Your task to perform on an android device: Search for vegetarian restaurants on Maps Image 0: 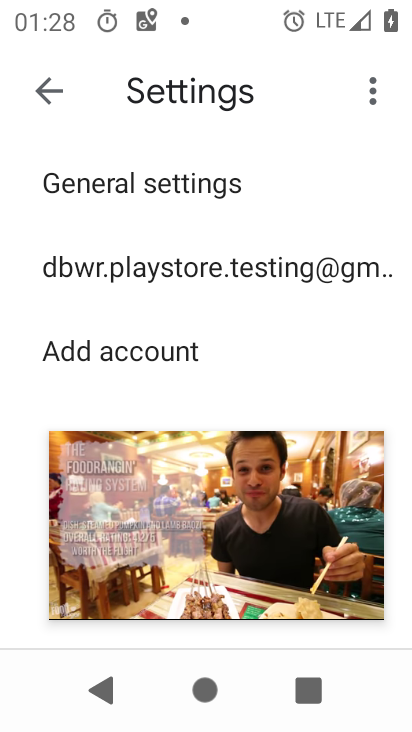
Step 0: drag from (261, 446) to (392, 729)
Your task to perform on an android device: Search for vegetarian restaurants on Maps Image 1: 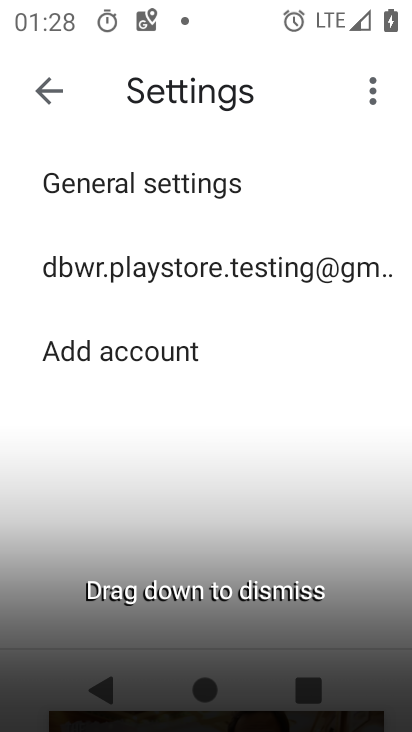
Step 1: press home button
Your task to perform on an android device: Search for vegetarian restaurants on Maps Image 2: 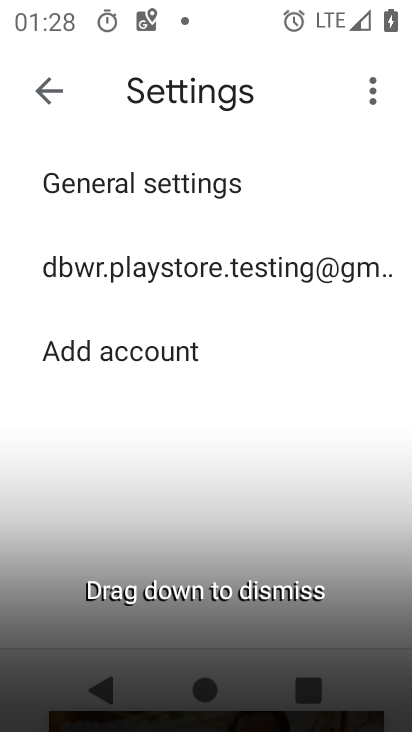
Step 2: click (406, 488)
Your task to perform on an android device: Search for vegetarian restaurants on Maps Image 3: 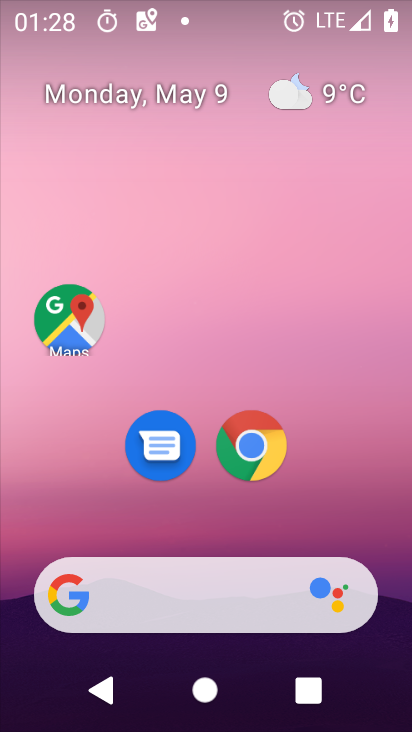
Step 3: click (69, 331)
Your task to perform on an android device: Search for vegetarian restaurants on Maps Image 4: 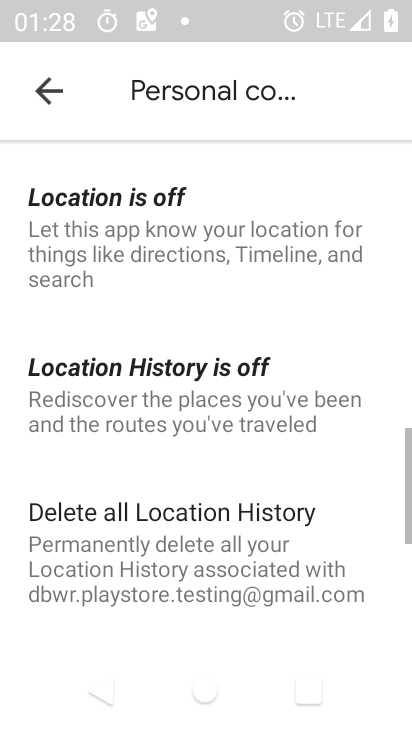
Step 4: click (56, 101)
Your task to perform on an android device: Search for vegetarian restaurants on Maps Image 5: 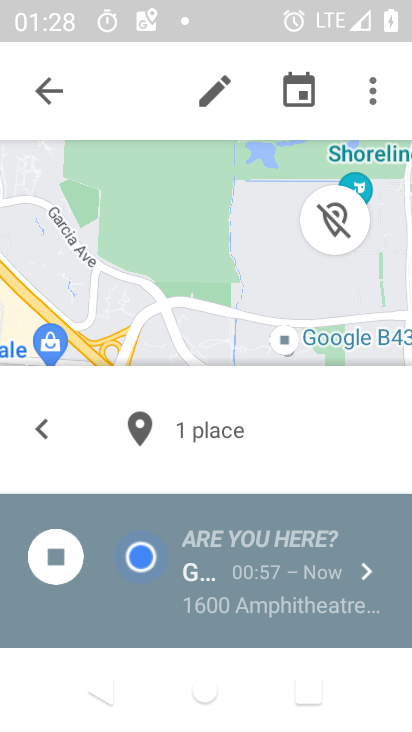
Step 5: click (56, 101)
Your task to perform on an android device: Search for vegetarian restaurants on Maps Image 6: 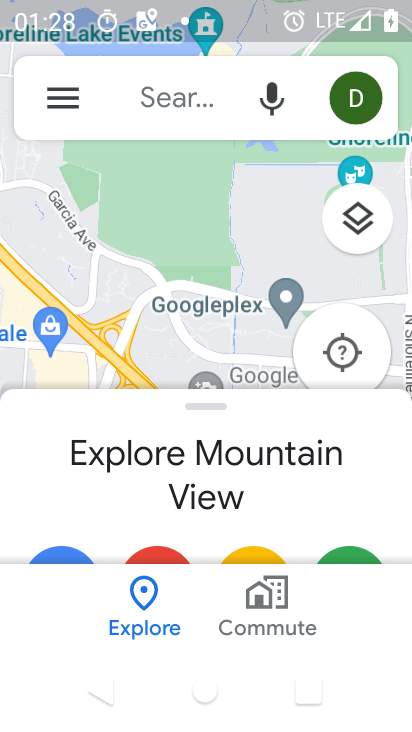
Step 6: click (142, 101)
Your task to perform on an android device: Search for vegetarian restaurants on Maps Image 7: 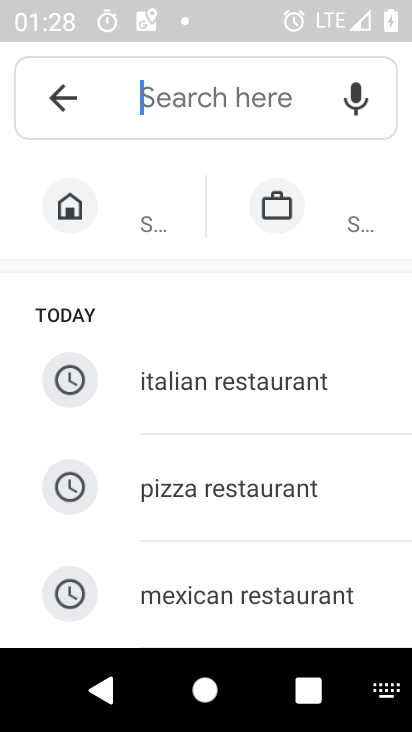
Step 7: type "vegetarian restaurant "
Your task to perform on an android device: Search for vegetarian restaurants on Maps Image 8: 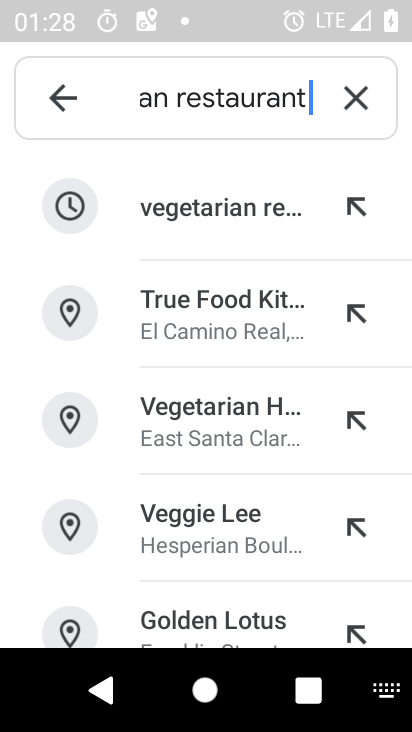
Step 8: click (222, 218)
Your task to perform on an android device: Search for vegetarian restaurants on Maps Image 9: 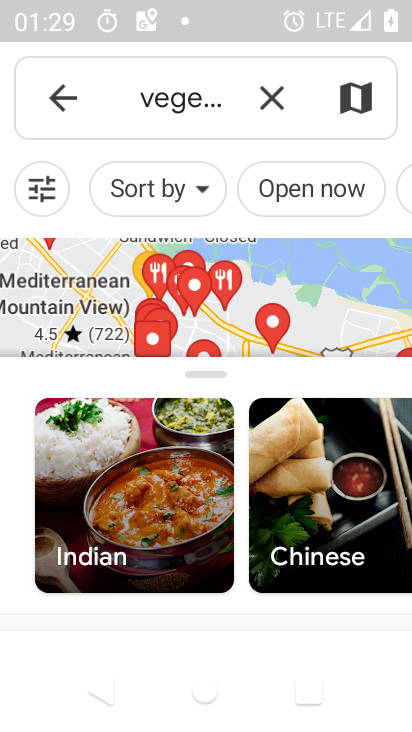
Step 9: task complete